Your task to perform on an android device: Open wifi settings Image 0: 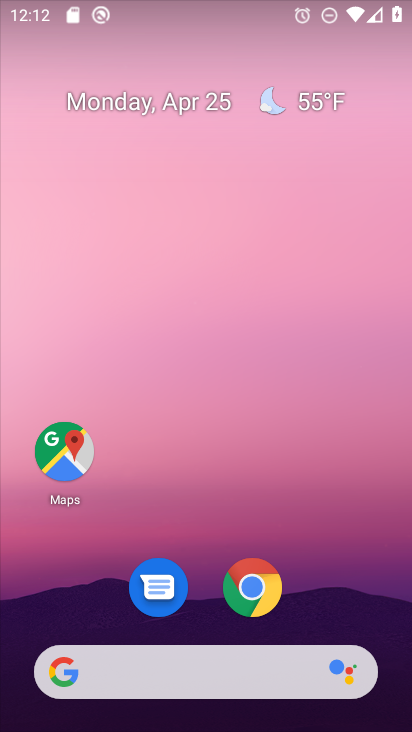
Step 0: drag from (343, 540) to (308, 98)
Your task to perform on an android device: Open wifi settings Image 1: 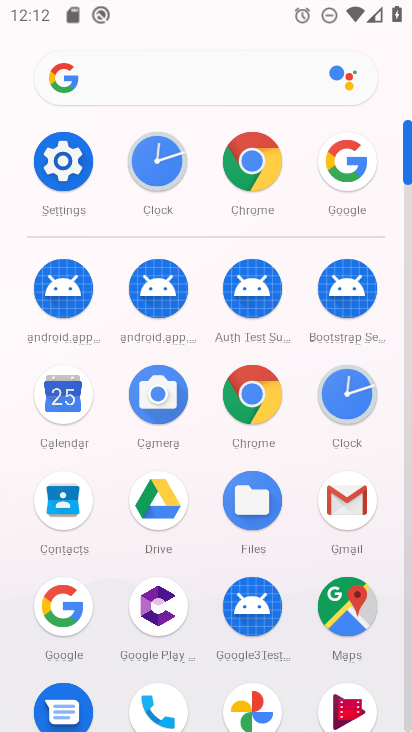
Step 1: click (59, 169)
Your task to perform on an android device: Open wifi settings Image 2: 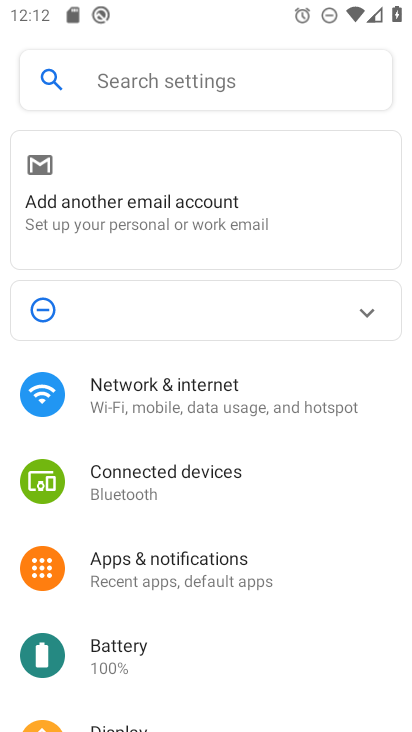
Step 2: drag from (291, 547) to (217, 268)
Your task to perform on an android device: Open wifi settings Image 3: 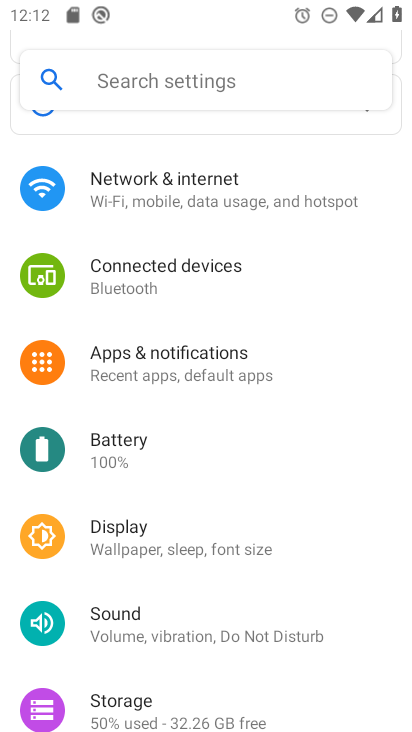
Step 3: click (190, 205)
Your task to perform on an android device: Open wifi settings Image 4: 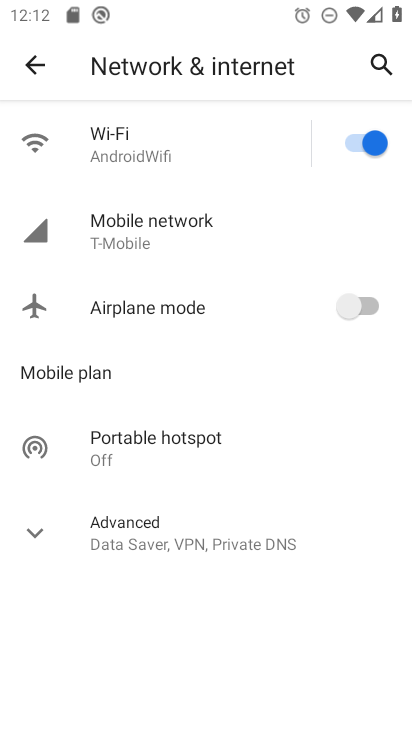
Step 4: click (180, 137)
Your task to perform on an android device: Open wifi settings Image 5: 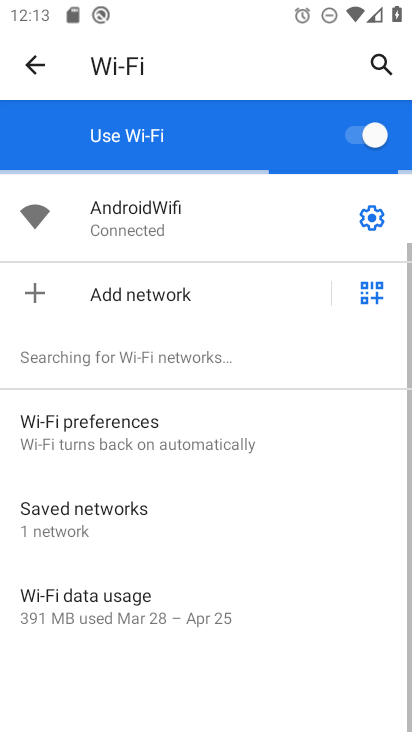
Step 5: click (376, 213)
Your task to perform on an android device: Open wifi settings Image 6: 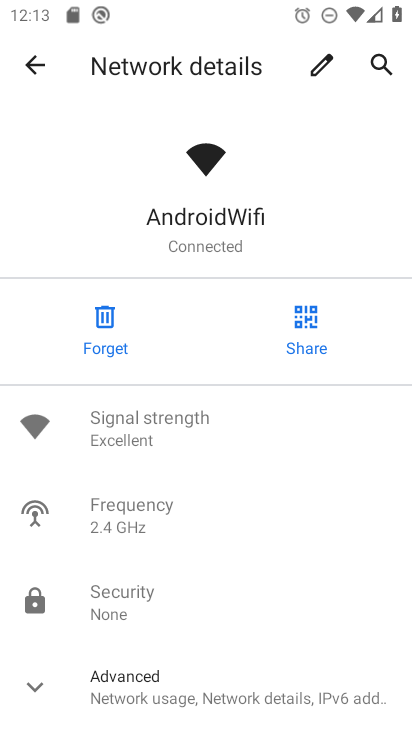
Step 6: task complete